Your task to perform on an android device: install app "Move to iOS" Image 0: 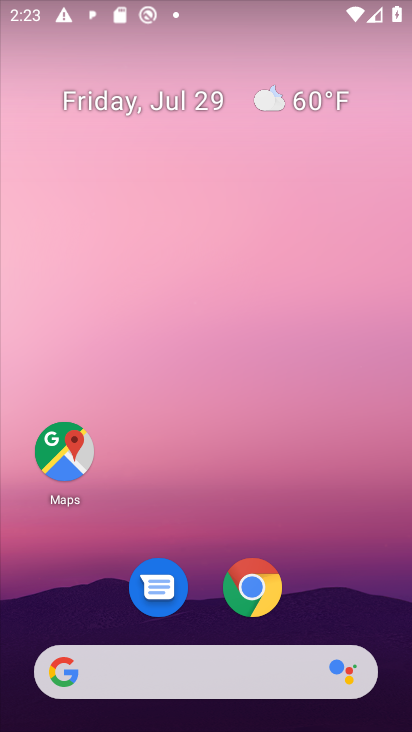
Step 0: drag from (303, 687) to (261, 157)
Your task to perform on an android device: install app "Move to iOS" Image 1: 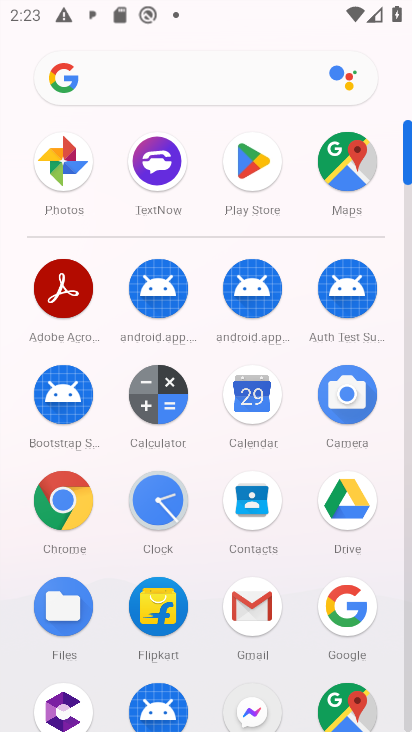
Step 1: click (251, 181)
Your task to perform on an android device: install app "Move to iOS" Image 2: 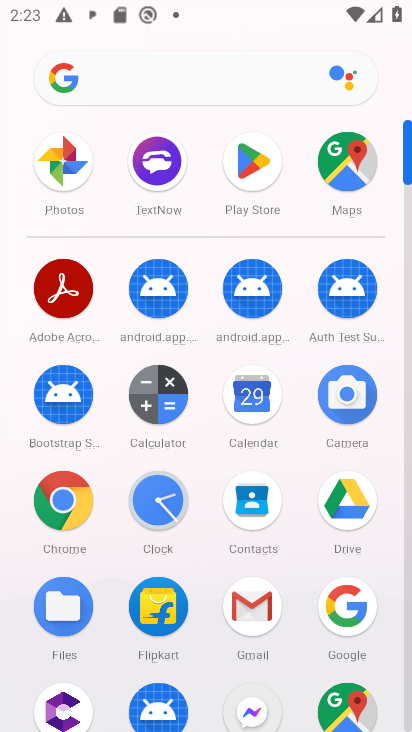
Step 2: click (251, 181)
Your task to perform on an android device: install app "Move to iOS" Image 3: 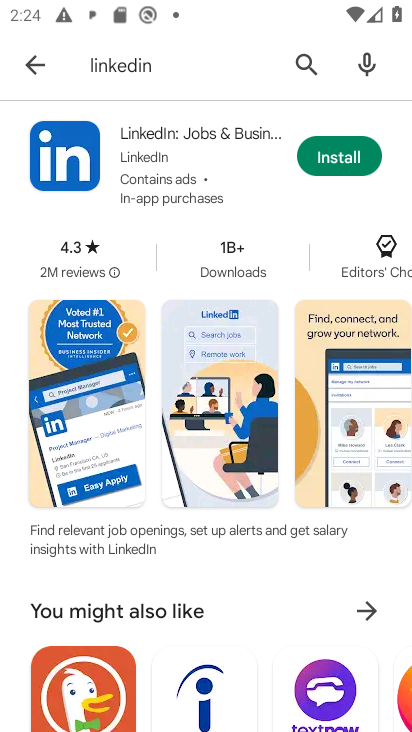
Step 3: click (316, 43)
Your task to perform on an android device: install app "Move to iOS" Image 4: 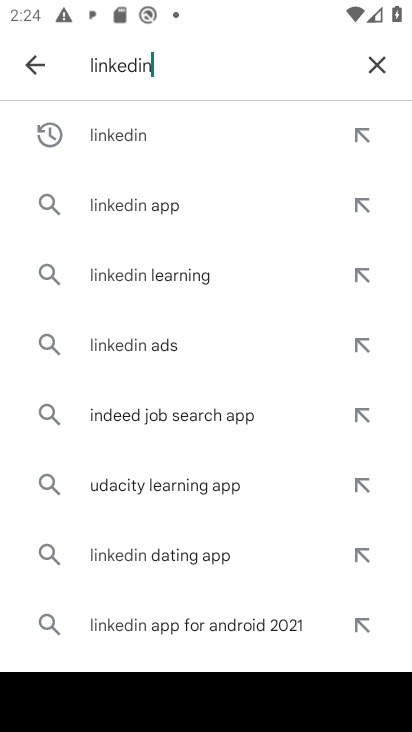
Step 4: type "Move to iOS"
Your task to perform on an android device: install app "Move to iOS" Image 5: 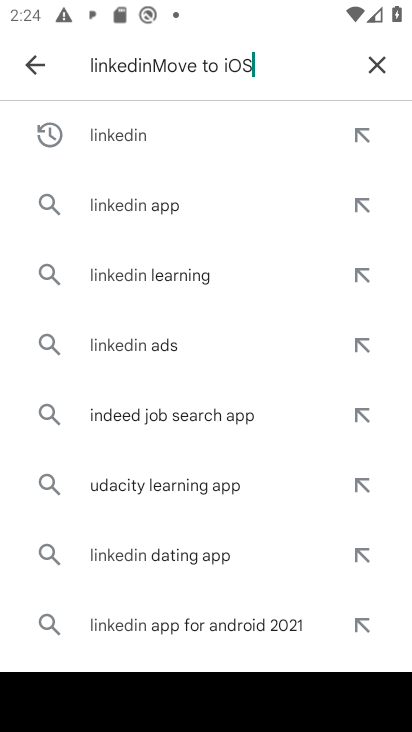
Step 5: type ""
Your task to perform on an android device: install app "Move to iOS" Image 6: 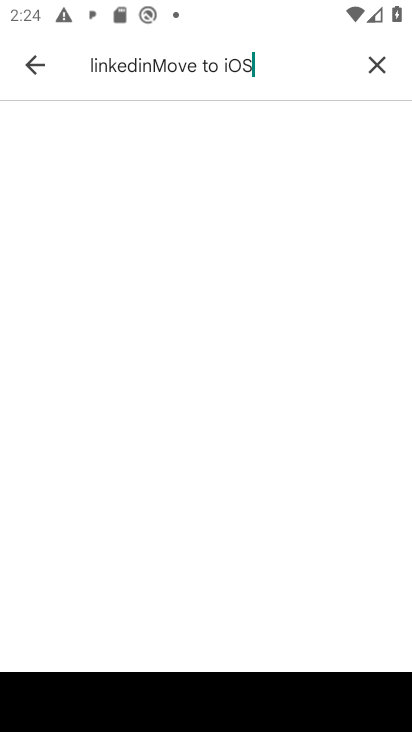
Step 6: click (386, 67)
Your task to perform on an android device: install app "Move to iOS" Image 7: 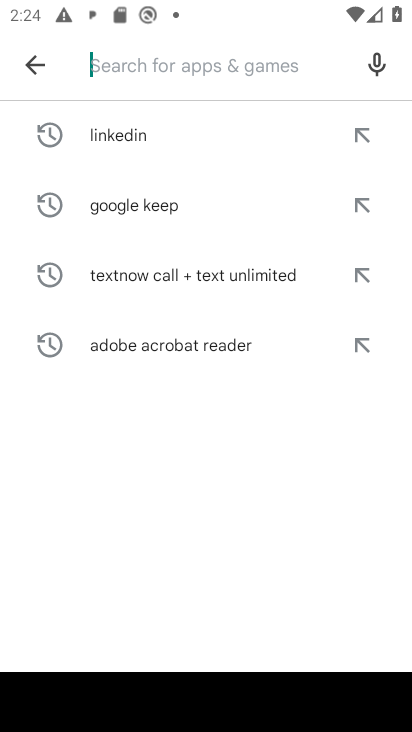
Step 7: click (296, 59)
Your task to perform on an android device: install app "Move to iOS" Image 8: 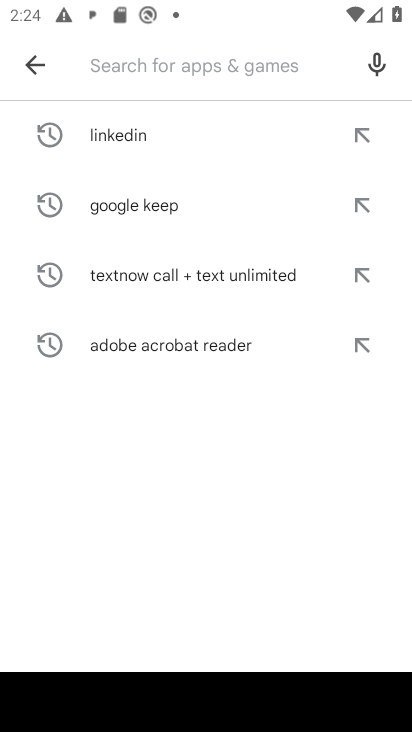
Step 8: type "Move to iOS"
Your task to perform on an android device: install app "Move to iOS" Image 9: 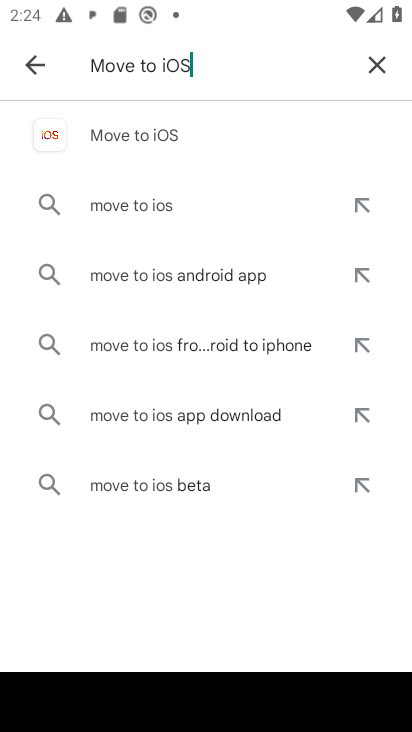
Step 9: click (154, 126)
Your task to perform on an android device: install app "Move to iOS" Image 10: 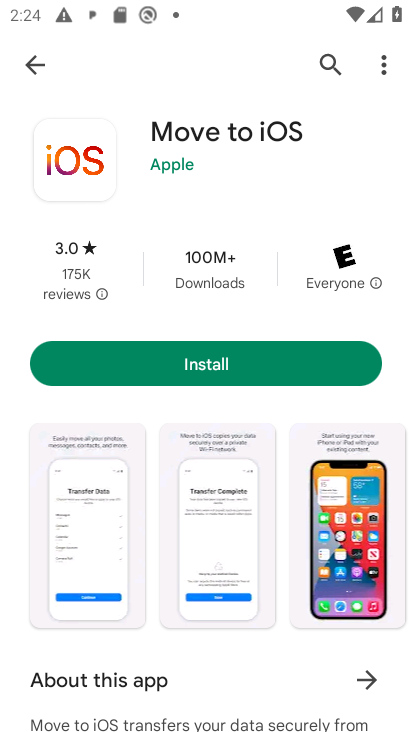
Step 10: click (189, 364)
Your task to perform on an android device: install app "Move to iOS" Image 11: 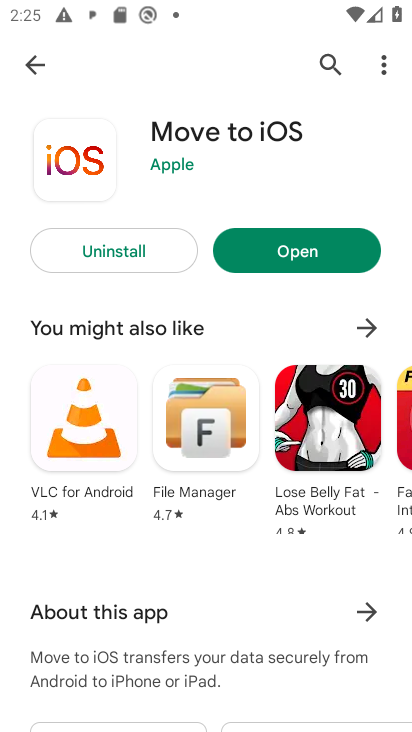
Step 11: task complete